Your task to perform on an android device: Open location settings Image 0: 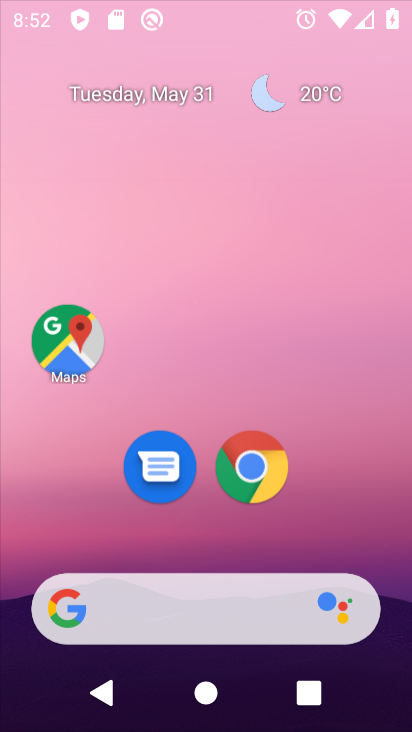
Step 0: click (263, 220)
Your task to perform on an android device: Open location settings Image 1: 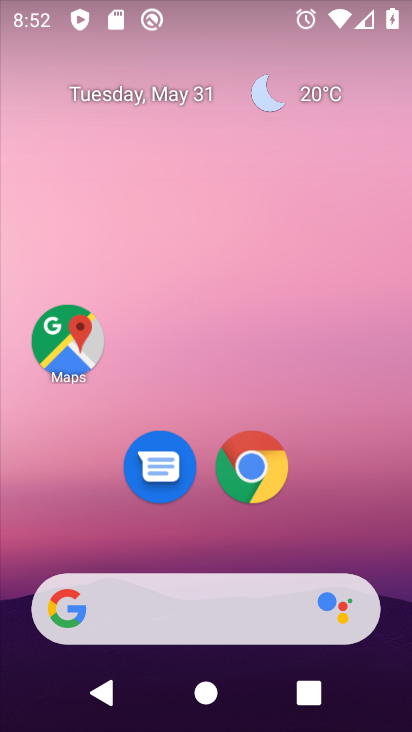
Step 1: drag from (172, 536) to (151, 5)
Your task to perform on an android device: Open location settings Image 2: 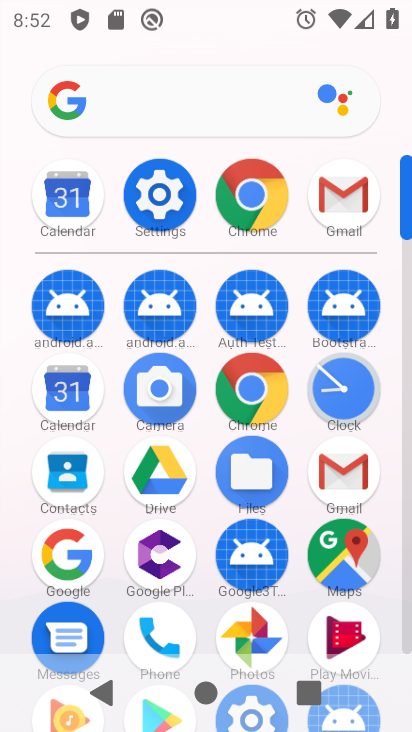
Step 2: click (156, 196)
Your task to perform on an android device: Open location settings Image 3: 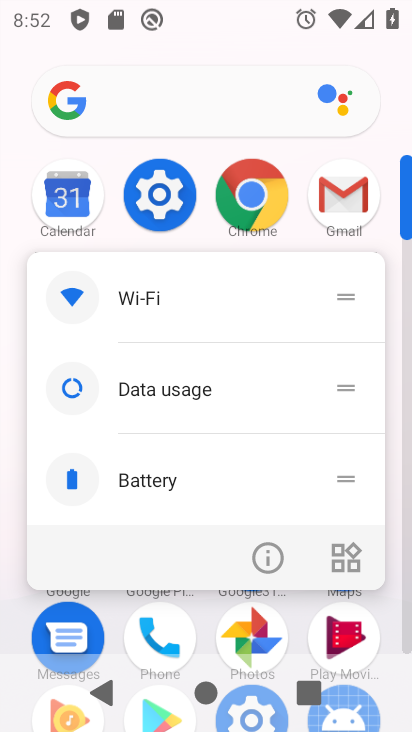
Step 3: click (270, 562)
Your task to perform on an android device: Open location settings Image 4: 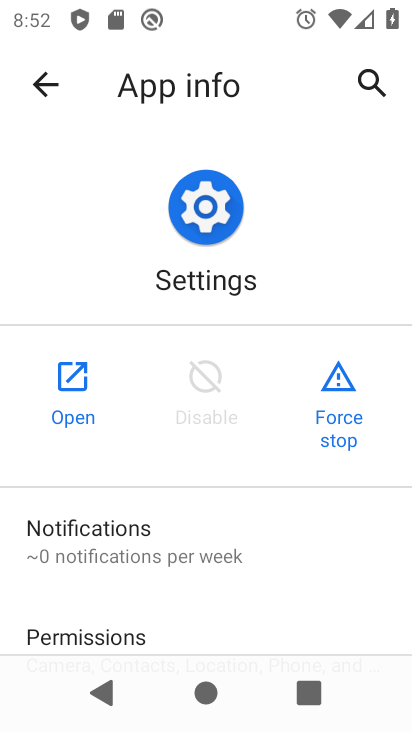
Step 4: click (87, 386)
Your task to perform on an android device: Open location settings Image 5: 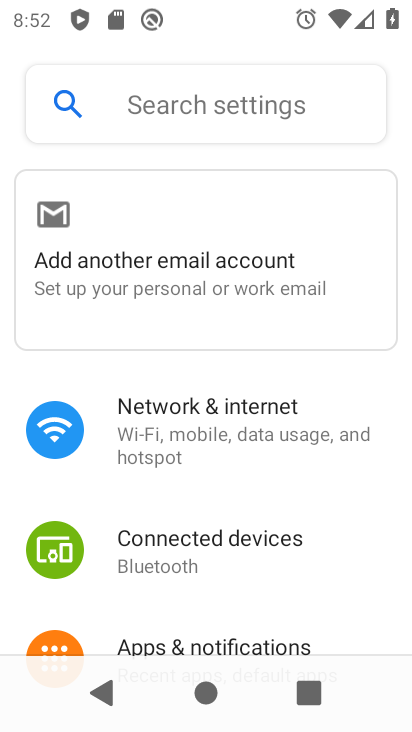
Step 5: drag from (229, 514) to (320, 132)
Your task to perform on an android device: Open location settings Image 6: 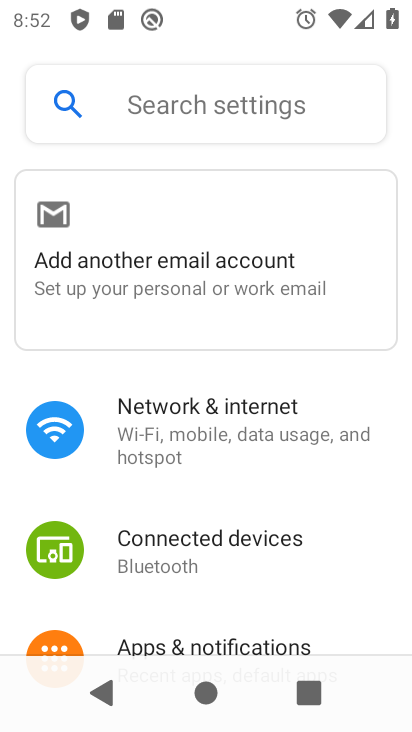
Step 6: drag from (195, 584) to (274, 141)
Your task to perform on an android device: Open location settings Image 7: 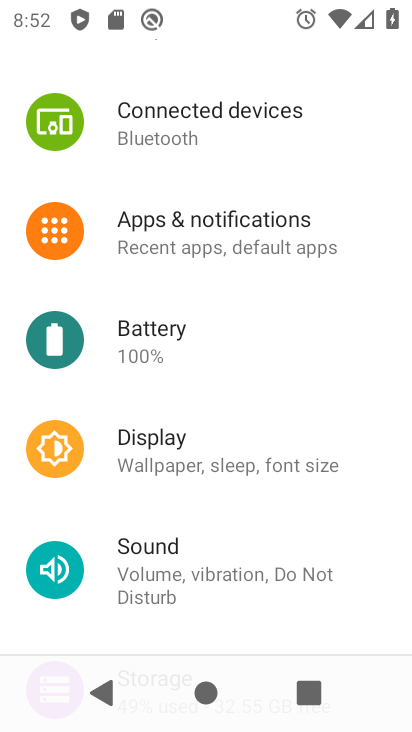
Step 7: drag from (205, 544) to (287, 158)
Your task to perform on an android device: Open location settings Image 8: 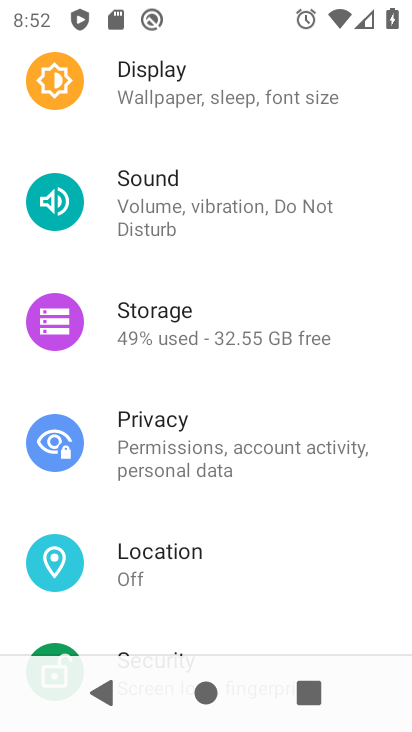
Step 8: click (196, 565)
Your task to perform on an android device: Open location settings Image 9: 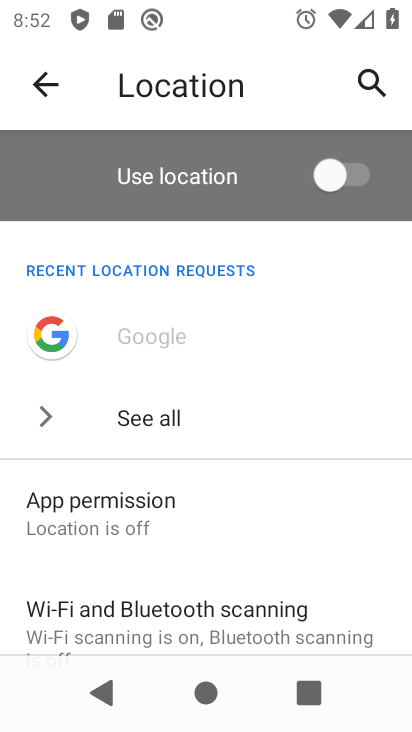
Step 9: drag from (132, 601) to (256, 239)
Your task to perform on an android device: Open location settings Image 10: 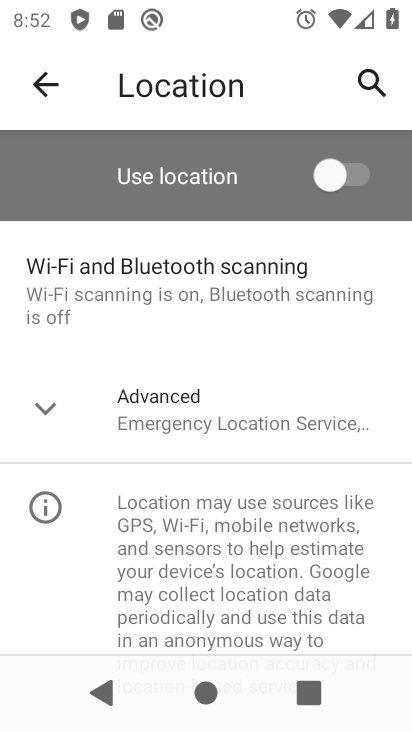
Step 10: click (168, 410)
Your task to perform on an android device: Open location settings Image 11: 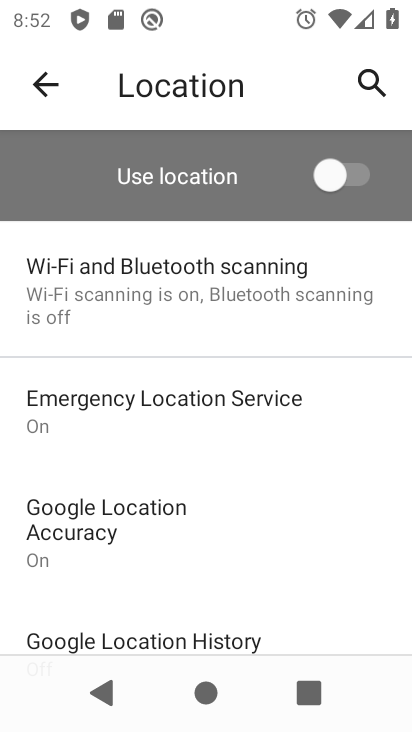
Step 11: task complete